Your task to perform on an android device: delete a single message in the gmail app Image 0: 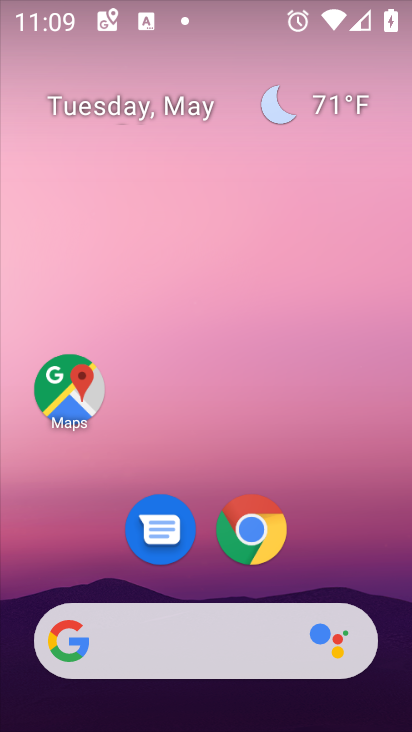
Step 0: drag from (247, 598) to (159, 137)
Your task to perform on an android device: delete a single message in the gmail app Image 1: 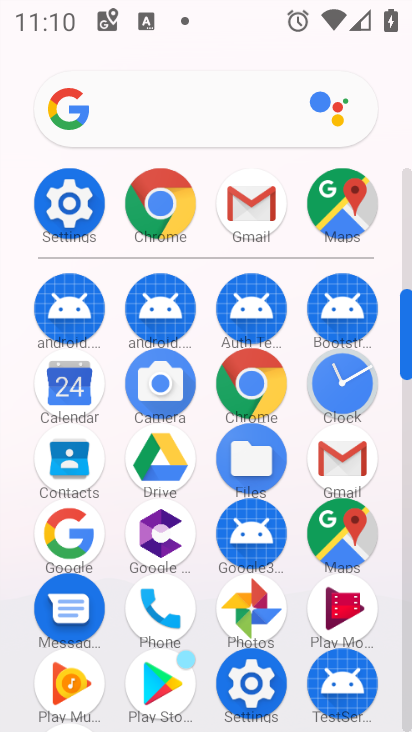
Step 1: click (354, 476)
Your task to perform on an android device: delete a single message in the gmail app Image 2: 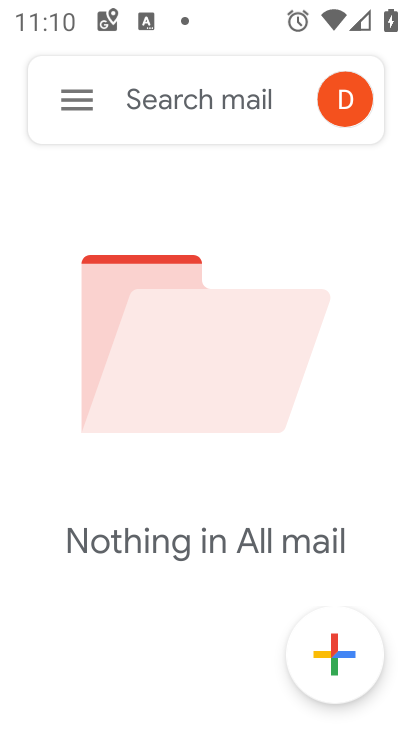
Step 2: click (70, 101)
Your task to perform on an android device: delete a single message in the gmail app Image 3: 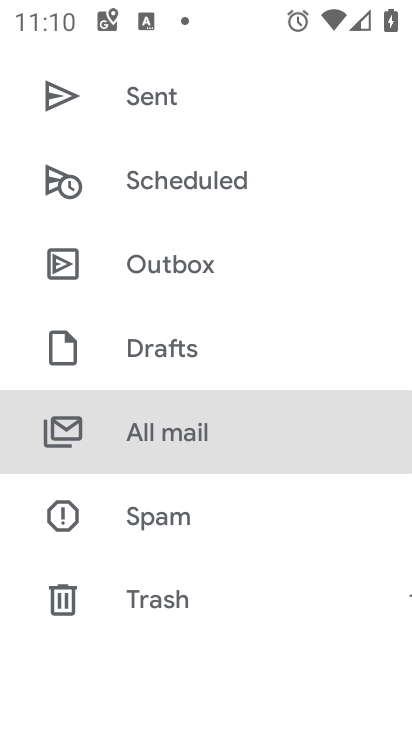
Step 3: click (183, 434)
Your task to perform on an android device: delete a single message in the gmail app Image 4: 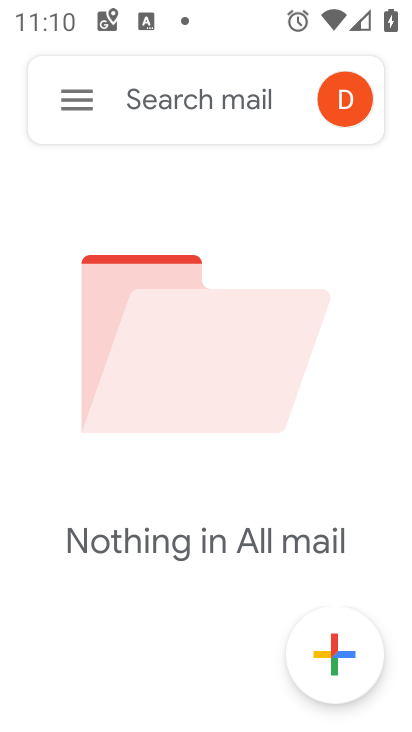
Step 4: task complete